Your task to perform on an android device: Is it going to rain this weekend? Image 0: 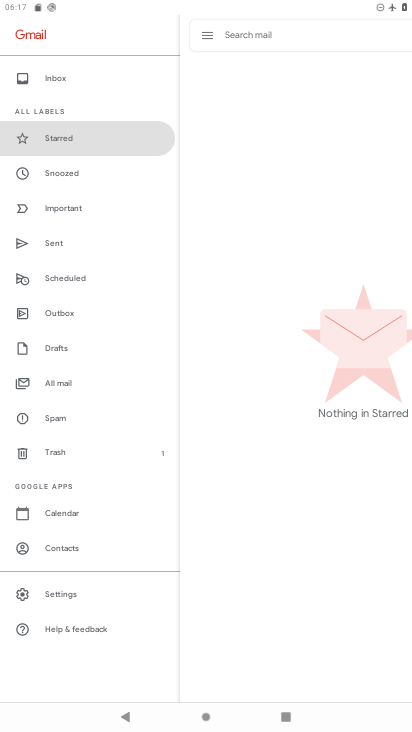
Step 0: press home button
Your task to perform on an android device: Is it going to rain this weekend? Image 1: 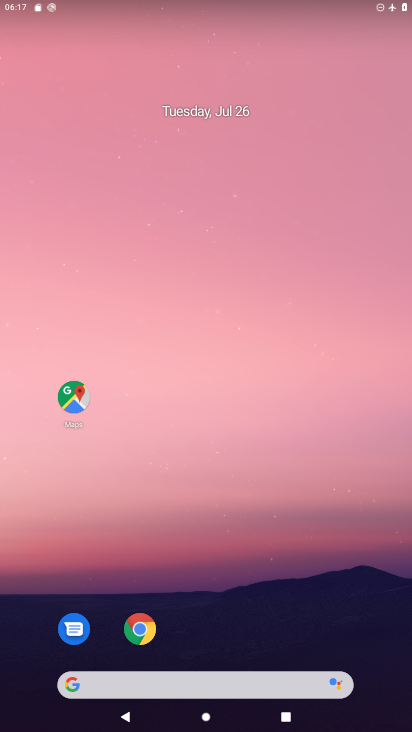
Step 1: drag from (175, 609) to (233, 100)
Your task to perform on an android device: Is it going to rain this weekend? Image 2: 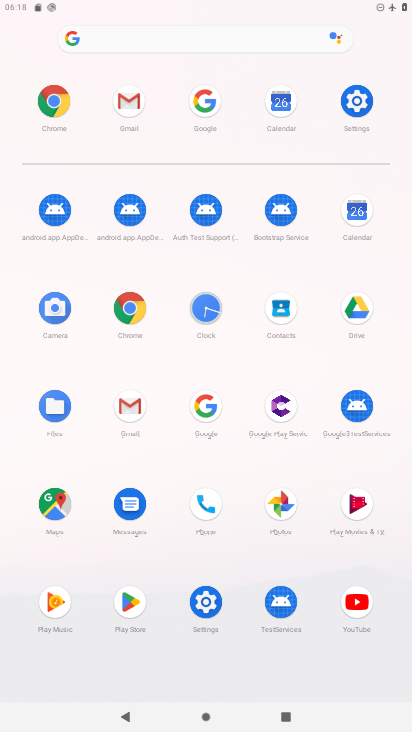
Step 2: click (201, 424)
Your task to perform on an android device: Is it going to rain this weekend? Image 3: 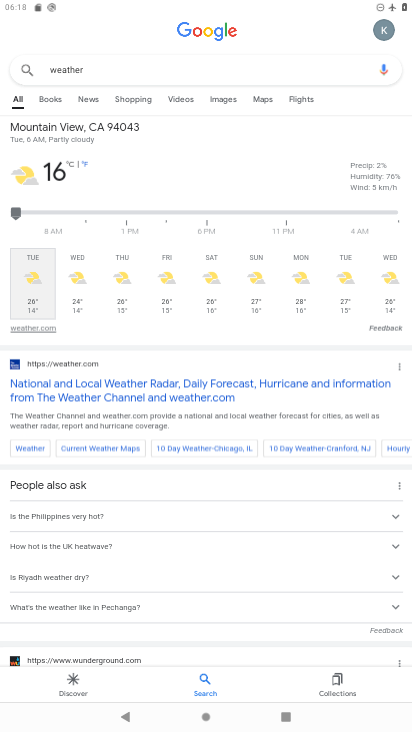
Step 3: click (26, 324)
Your task to perform on an android device: Is it going to rain this weekend? Image 4: 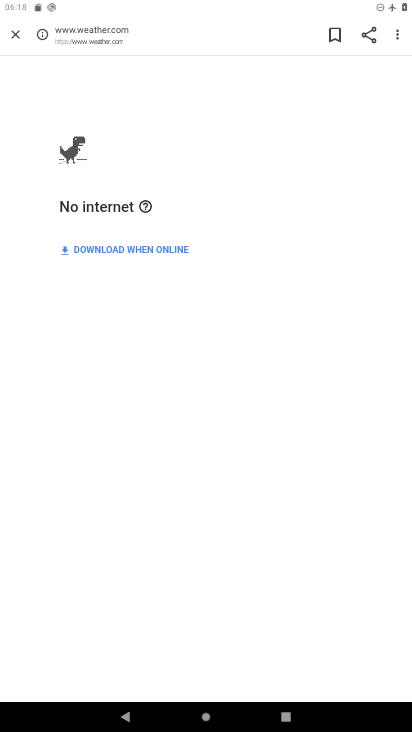
Step 4: task complete